Your task to perform on an android device: change the clock display to show seconds Image 0: 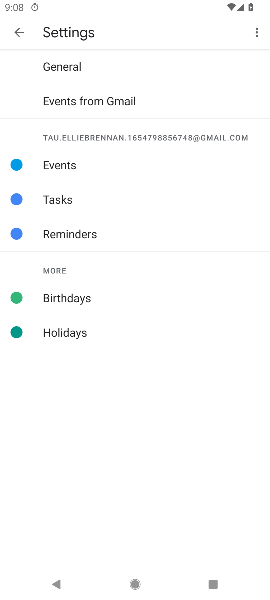
Step 0: press home button
Your task to perform on an android device: change the clock display to show seconds Image 1: 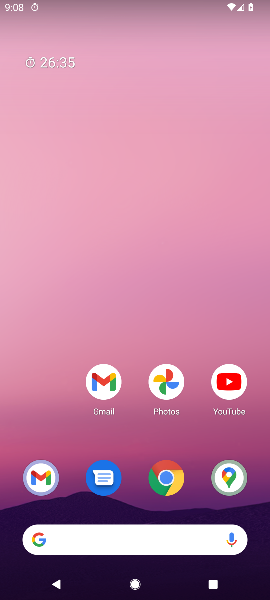
Step 1: drag from (132, 448) to (162, 6)
Your task to perform on an android device: change the clock display to show seconds Image 2: 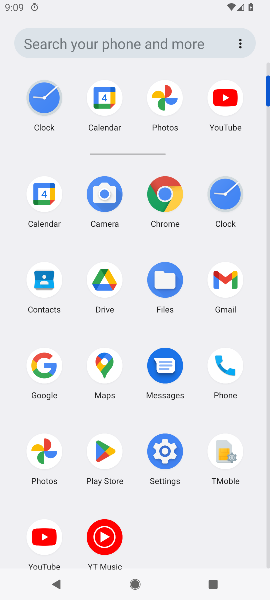
Step 2: click (219, 199)
Your task to perform on an android device: change the clock display to show seconds Image 3: 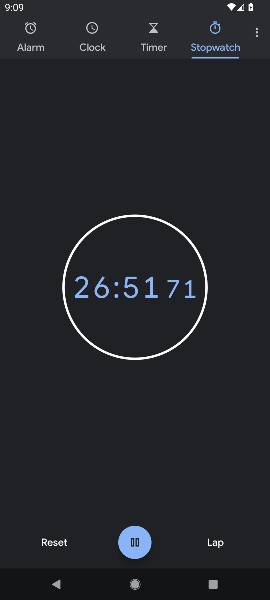
Step 3: click (258, 28)
Your task to perform on an android device: change the clock display to show seconds Image 4: 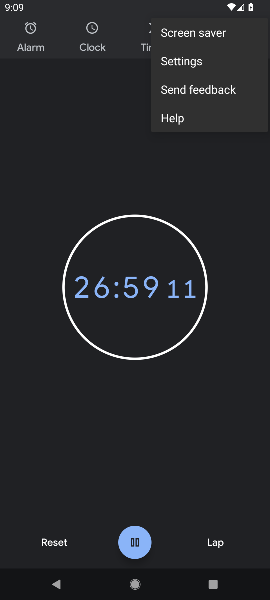
Step 4: click (194, 61)
Your task to perform on an android device: change the clock display to show seconds Image 5: 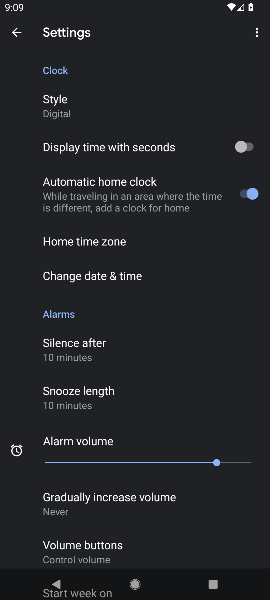
Step 5: drag from (168, 414) to (147, 112)
Your task to perform on an android device: change the clock display to show seconds Image 6: 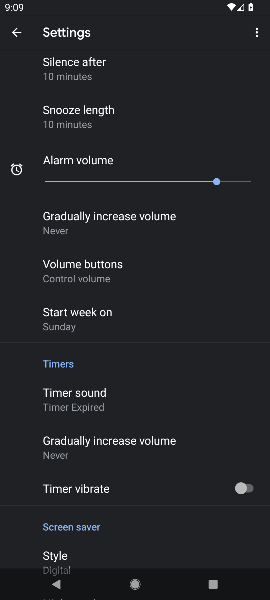
Step 6: drag from (175, 79) to (121, 439)
Your task to perform on an android device: change the clock display to show seconds Image 7: 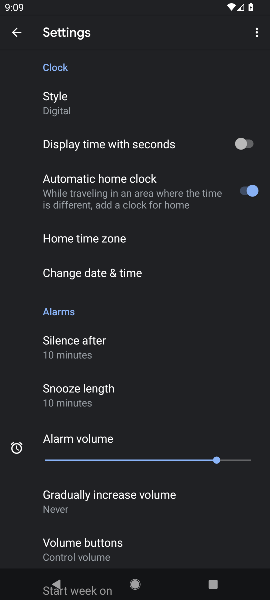
Step 7: click (137, 153)
Your task to perform on an android device: change the clock display to show seconds Image 8: 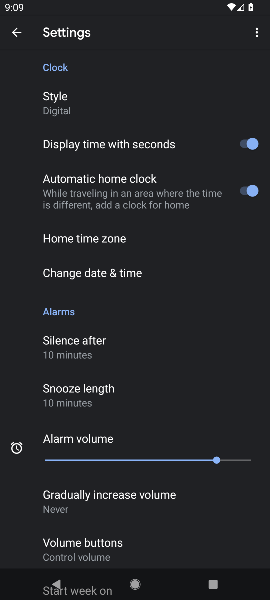
Step 8: task complete